Your task to perform on an android device: Check the weather Image 0: 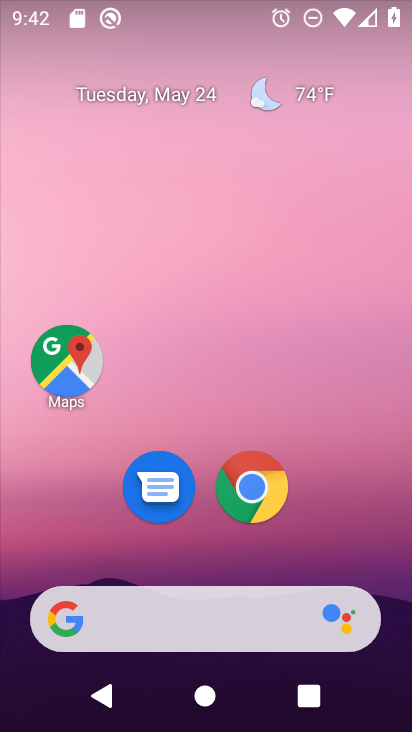
Step 0: click (304, 102)
Your task to perform on an android device: Check the weather Image 1: 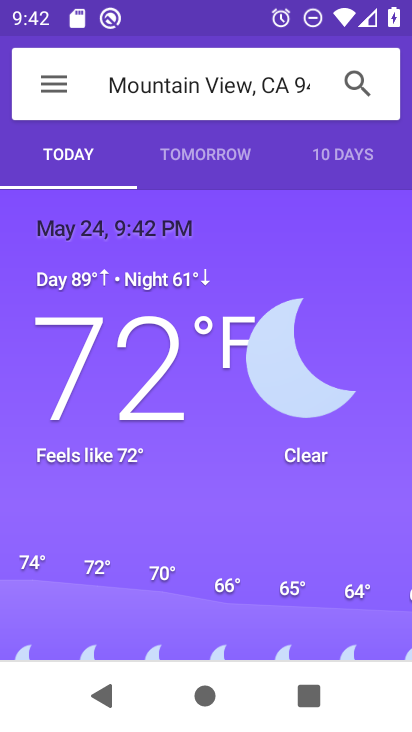
Step 1: task complete